Your task to perform on an android device: toggle notification dots Image 0: 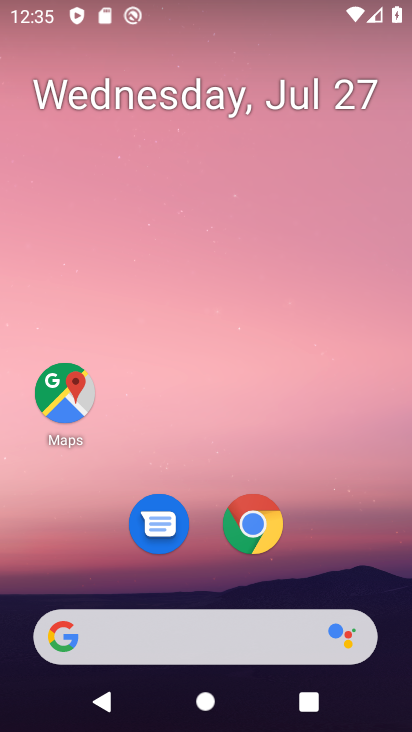
Step 0: drag from (334, 549) to (362, 52)
Your task to perform on an android device: toggle notification dots Image 1: 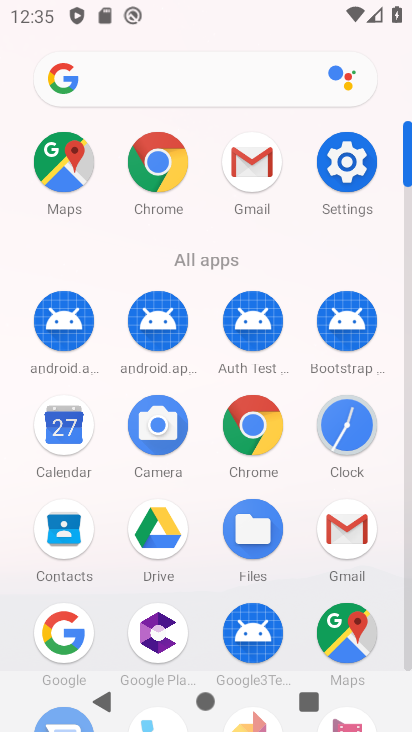
Step 1: click (344, 162)
Your task to perform on an android device: toggle notification dots Image 2: 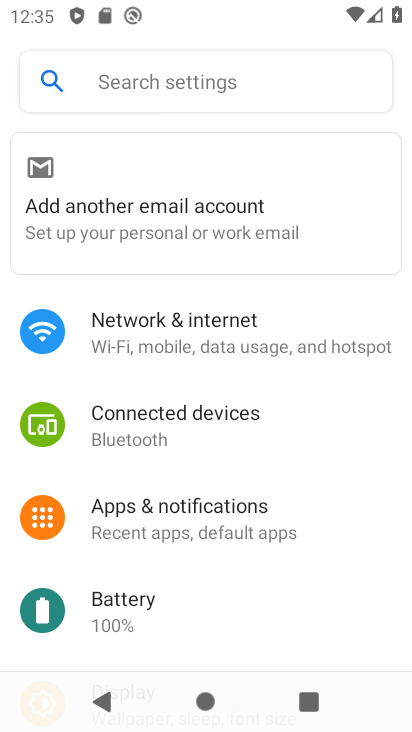
Step 2: click (231, 515)
Your task to perform on an android device: toggle notification dots Image 3: 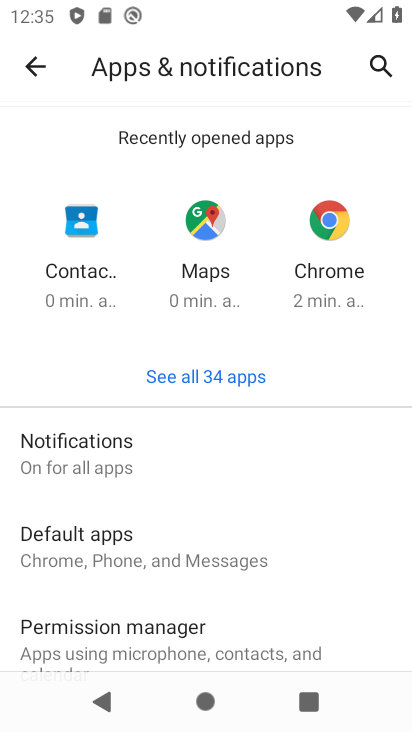
Step 3: click (120, 451)
Your task to perform on an android device: toggle notification dots Image 4: 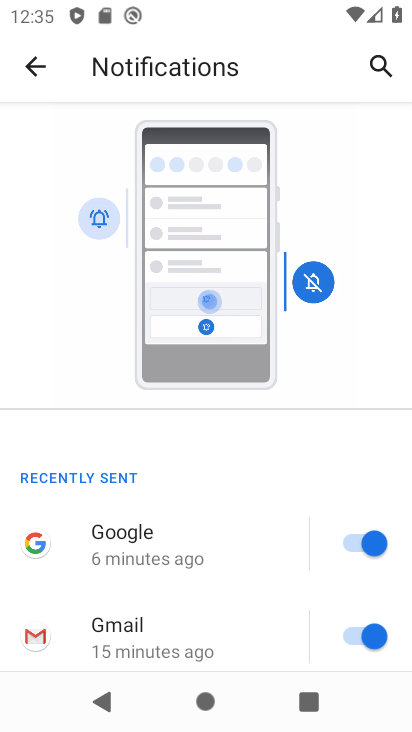
Step 4: drag from (189, 559) to (267, 11)
Your task to perform on an android device: toggle notification dots Image 5: 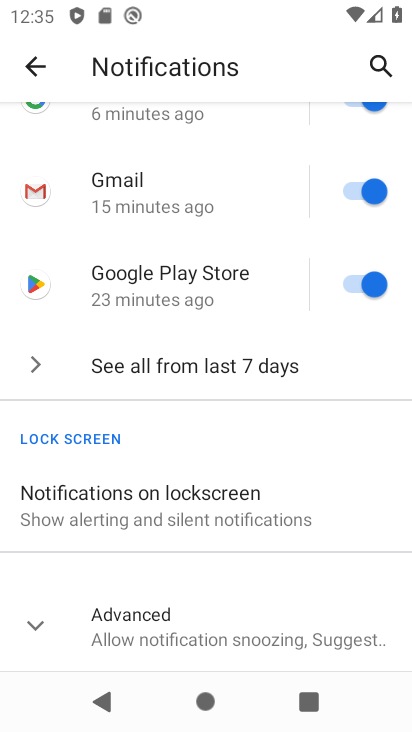
Step 5: click (34, 624)
Your task to perform on an android device: toggle notification dots Image 6: 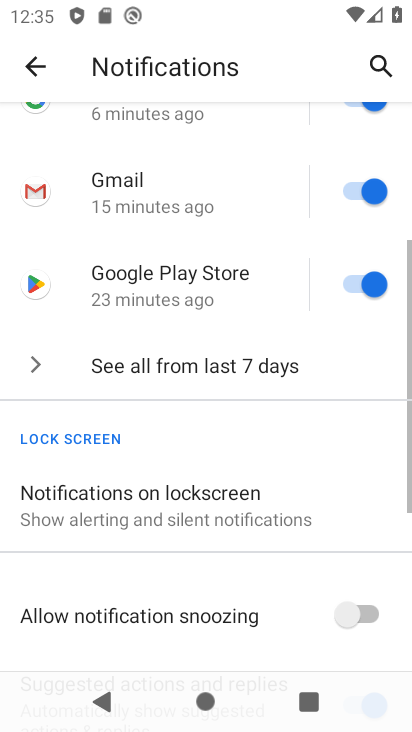
Step 6: drag from (229, 578) to (302, 117)
Your task to perform on an android device: toggle notification dots Image 7: 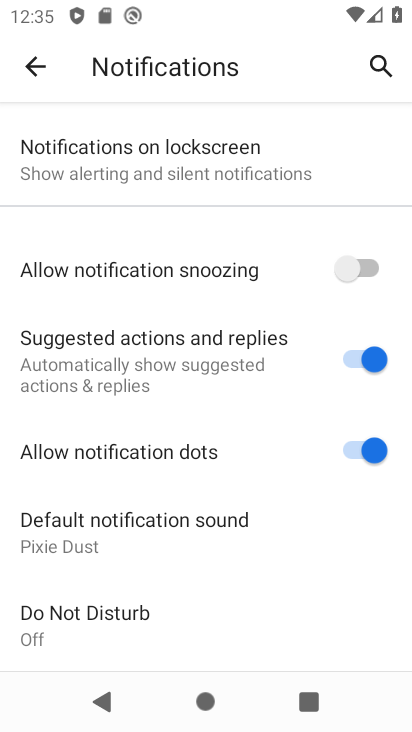
Step 7: click (355, 448)
Your task to perform on an android device: toggle notification dots Image 8: 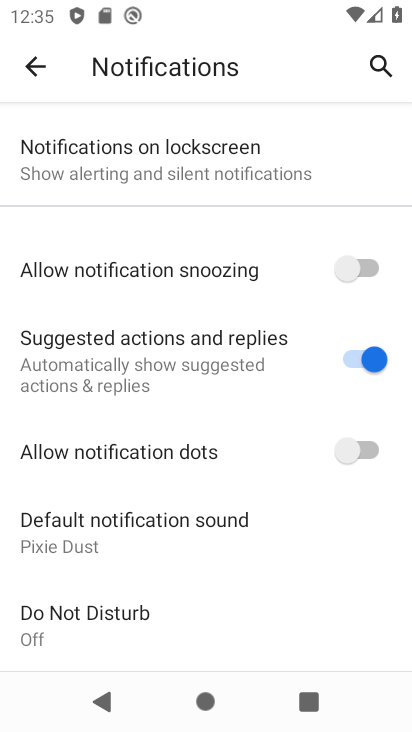
Step 8: task complete